Your task to perform on an android device: open app "AliExpress" Image 0: 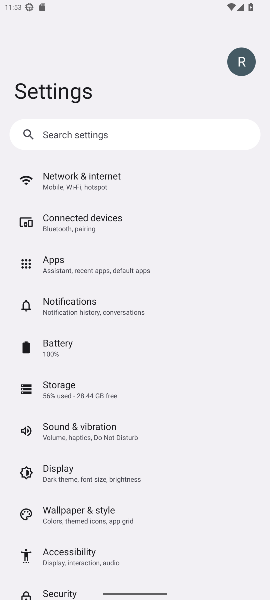
Step 0: press home button
Your task to perform on an android device: open app "AliExpress" Image 1: 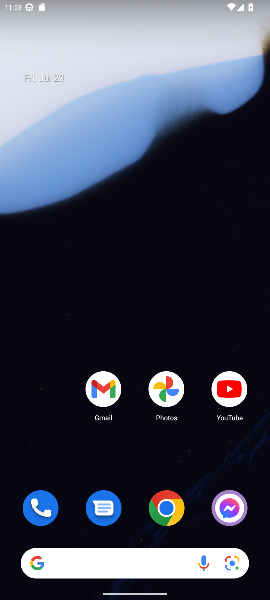
Step 1: drag from (152, 562) to (119, 9)
Your task to perform on an android device: open app "AliExpress" Image 2: 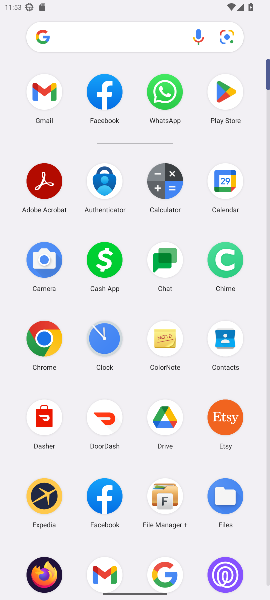
Step 2: click (228, 85)
Your task to perform on an android device: open app "AliExpress" Image 3: 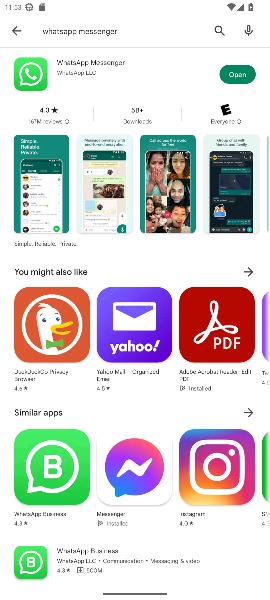
Step 3: click (215, 21)
Your task to perform on an android device: open app "AliExpress" Image 4: 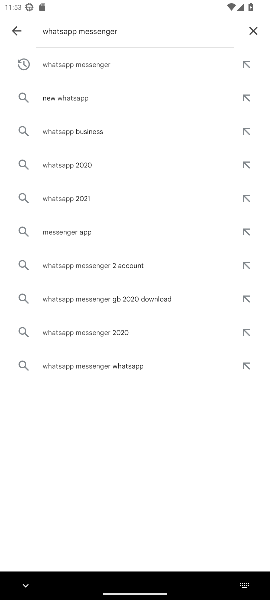
Step 4: click (253, 30)
Your task to perform on an android device: open app "AliExpress" Image 5: 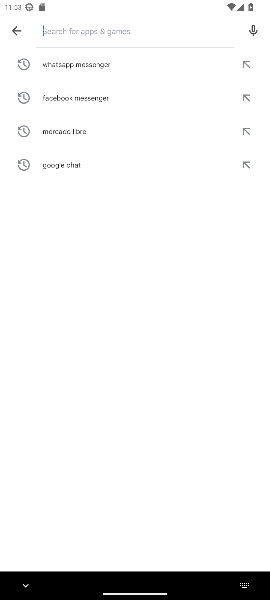
Step 5: type "aliexpress"
Your task to perform on an android device: open app "AliExpress" Image 6: 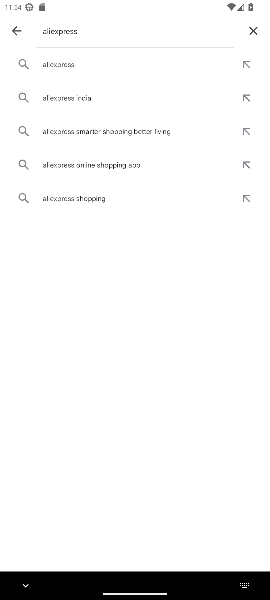
Step 6: click (62, 62)
Your task to perform on an android device: open app "AliExpress" Image 7: 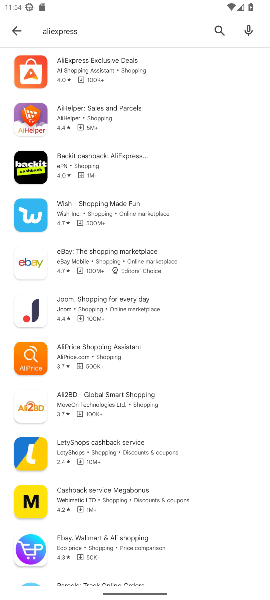
Step 7: click (34, 75)
Your task to perform on an android device: open app "AliExpress" Image 8: 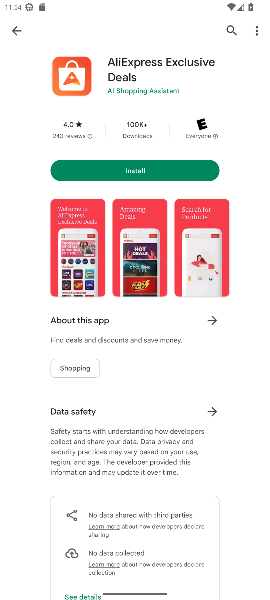
Step 8: task complete